Your task to perform on an android device: Search for the best burger restaurants on Maps Image 0: 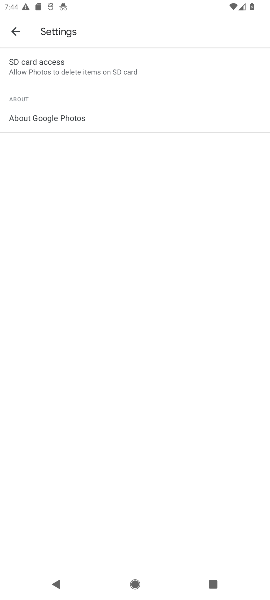
Step 0: press home button
Your task to perform on an android device: Search for the best burger restaurants on Maps Image 1: 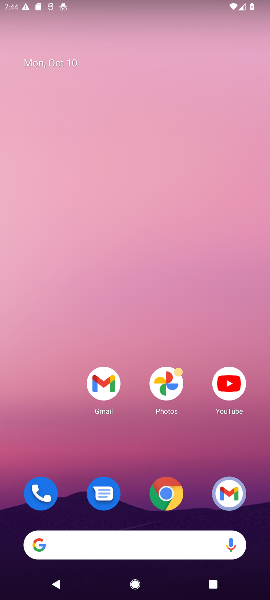
Step 1: click (111, 542)
Your task to perform on an android device: Search for the best burger restaurants on Maps Image 2: 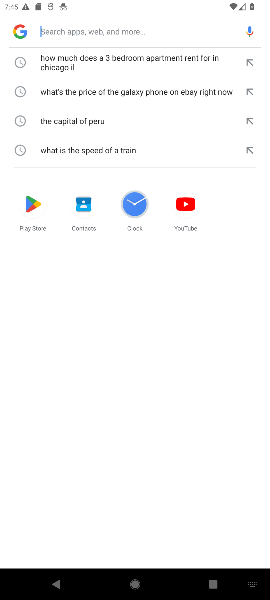
Step 2: press back button
Your task to perform on an android device: Search for the best burger restaurants on Maps Image 3: 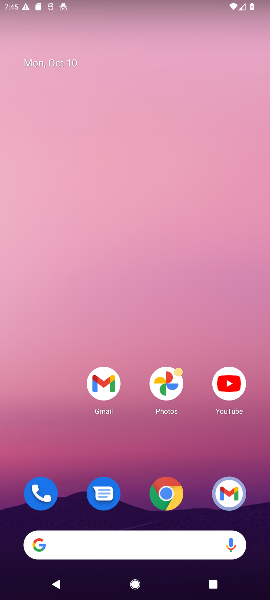
Step 3: drag from (116, 390) to (113, 113)
Your task to perform on an android device: Search for the best burger restaurants on Maps Image 4: 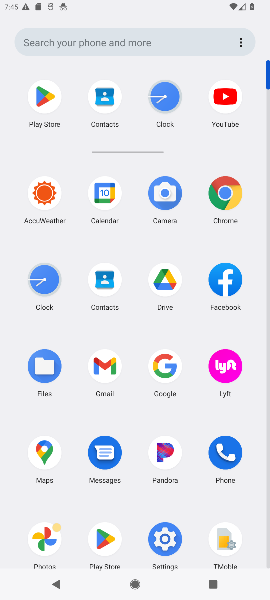
Step 4: click (44, 446)
Your task to perform on an android device: Search for the best burger restaurants on Maps Image 5: 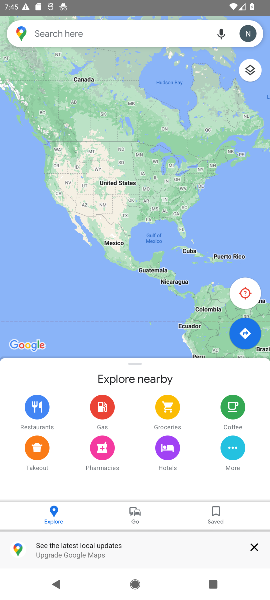
Step 5: click (128, 27)
Your task to perform on an android device: Search for the best burger restaurants on Maps Image 6: 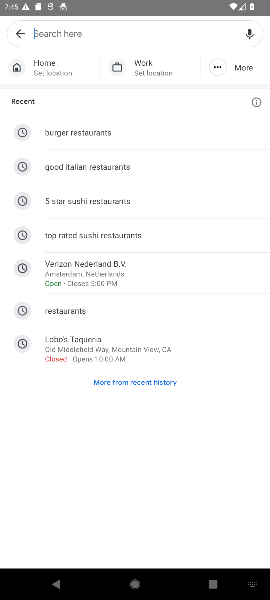
Step 6: type "best burger restaurants "
Your task to perform on an android device: Search for the best burger restaurants on Maps Image 7: 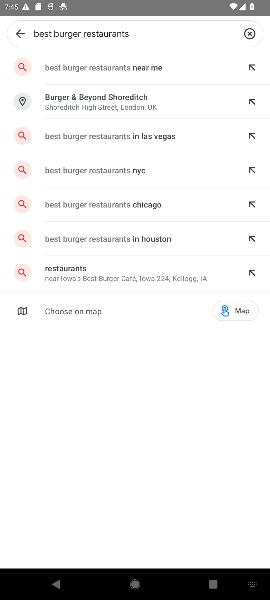
Step 7: click (109, 110)
Your task to perform on an android device: Search for the best burger restaurants on Maps Image 8: 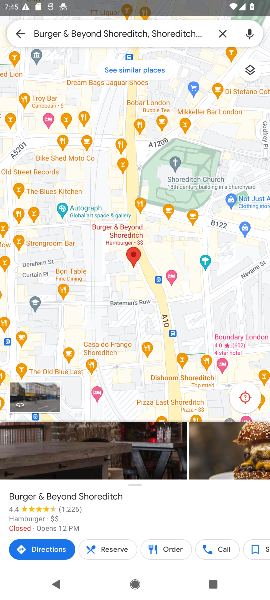
Step 8: task complete